Your task to perform on an android device: Open calendar and show me the first week of next month Image 0: 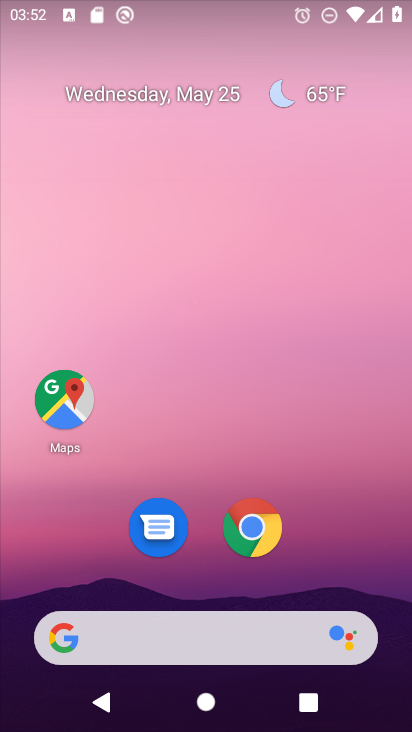
Step 0: drag from (339, 617) to (350, 81)
Your task to perform on an android device: Open calendar and show me the first week of next month Image 1: 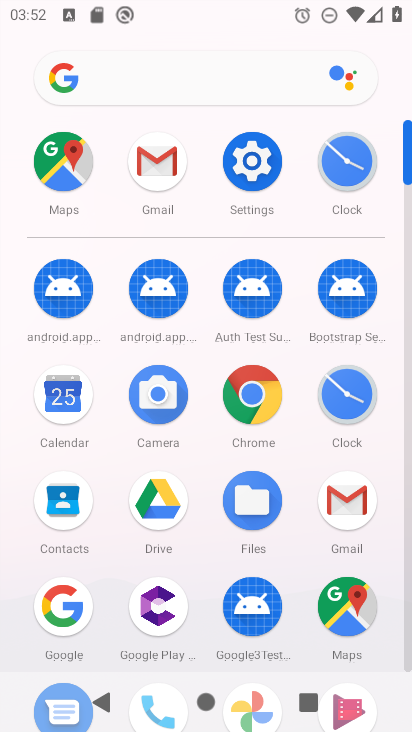
Step 1: click (66, 385)
Your task to perform on an android device: Open calendar and show me the first week of next month Image 2: 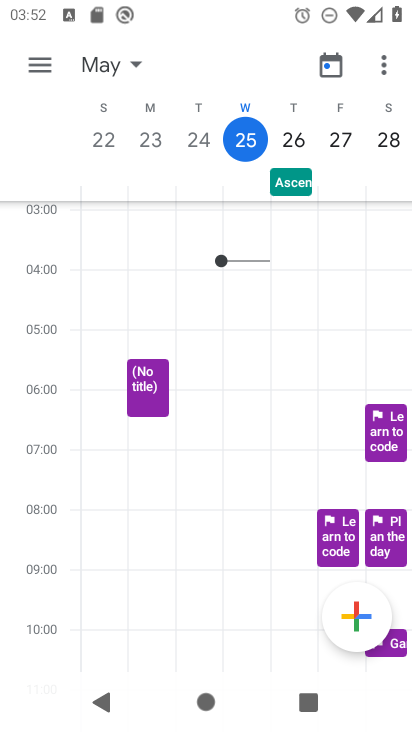
Step 2: click (135, 64)
Your task to perform on an android device: Open calendar and show me the first week of next month Image 3: 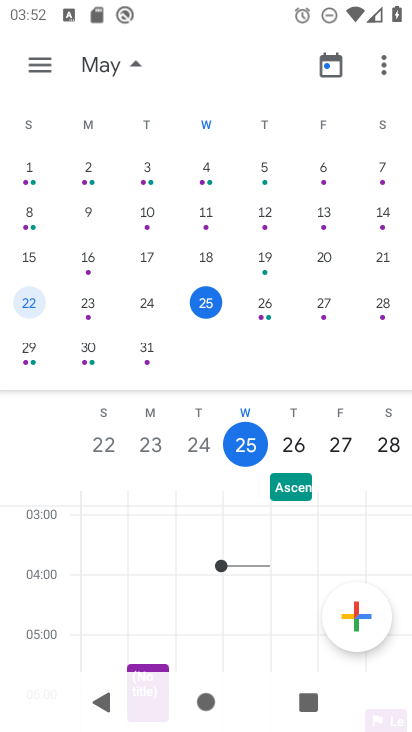
Step 3: drag from (338, 294) to (7, 208)
Your task to perform on an android device: Open calendar and show me the first week of next month Image 4: 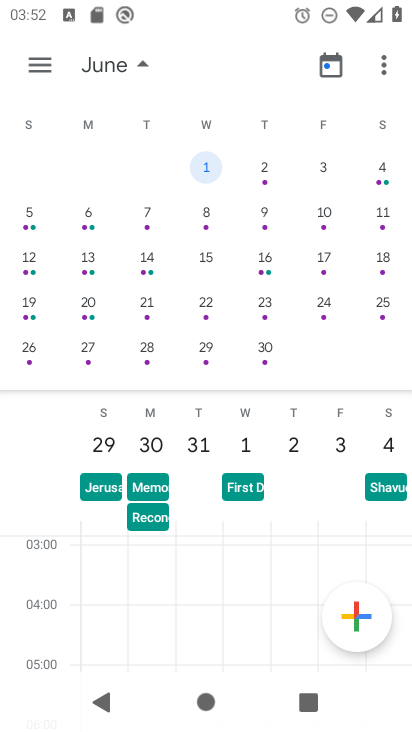
Step 4: click (329, 168)
Your task to perform on an android device: Open calendar and show me the first week of next month Image 5: 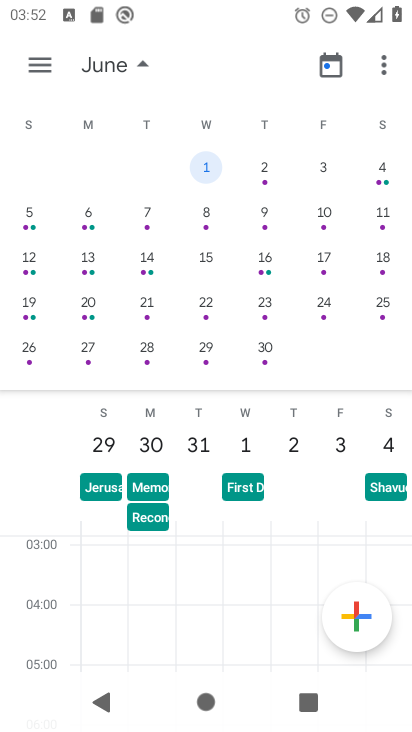
Step 5: click (330, 170)
Your task to perform on an android device: Open calendar and show me the first week of next month Image 6: 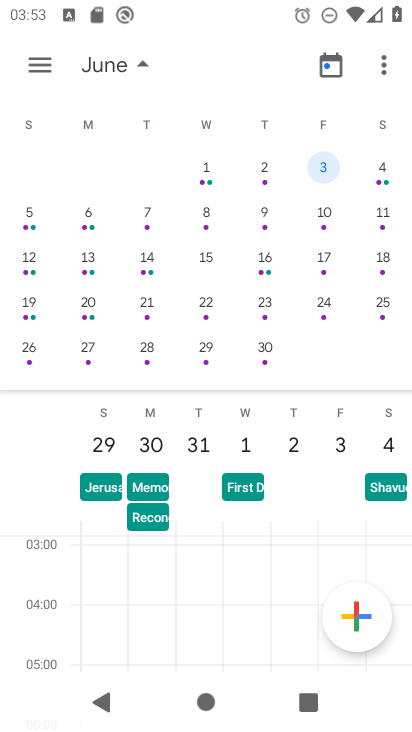
Step 6: click (35, 71)
Your task to perform on an android device: Open calendar and show me the first week of next month Image 7: 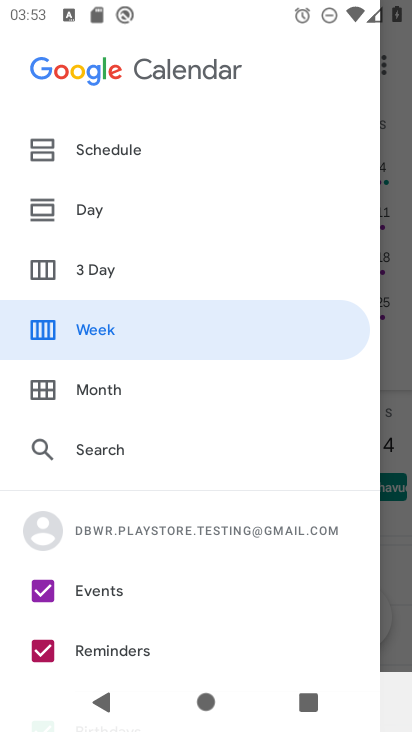
Step 7: click (74, 319)
Your task to perform on an android device: Open calendar and show me the first week of next month Image 8: 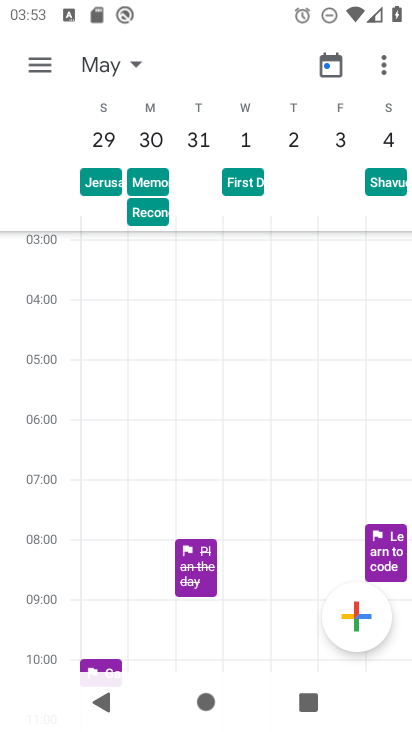
Step 8: task complete